Your task to perform on an android device: Go to Android settings Image 0: 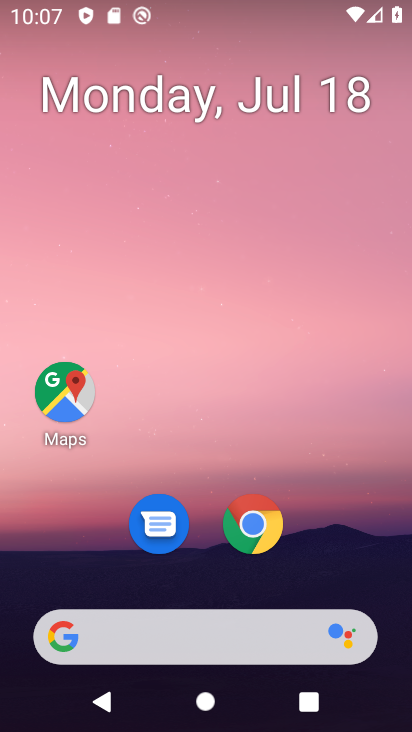
Step 0: drag from (322, 458) to (345, 1)
Your task to perform on an android device: Go to Android settings Image 1: 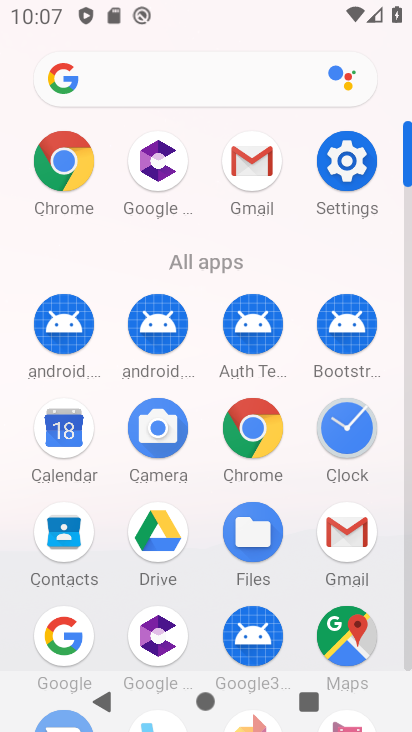
Step 1: click (342, 157)
Your task to perform on an android device: Go to Android settings Image 2: 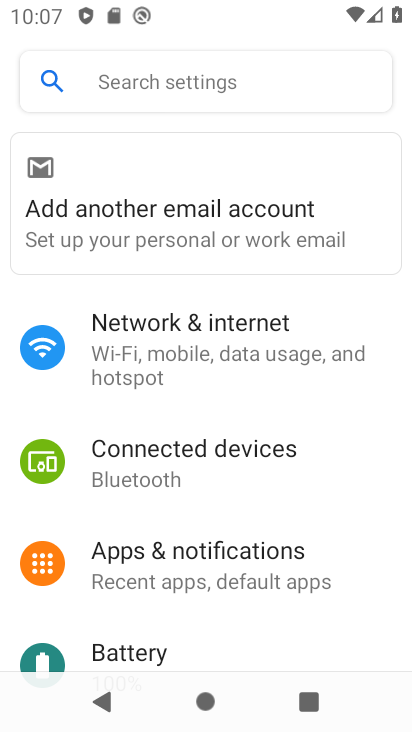
Step 2: drag from (204, 622) to (250, 97)
Your task to perform on an android device: Go to Android settings Image 3: 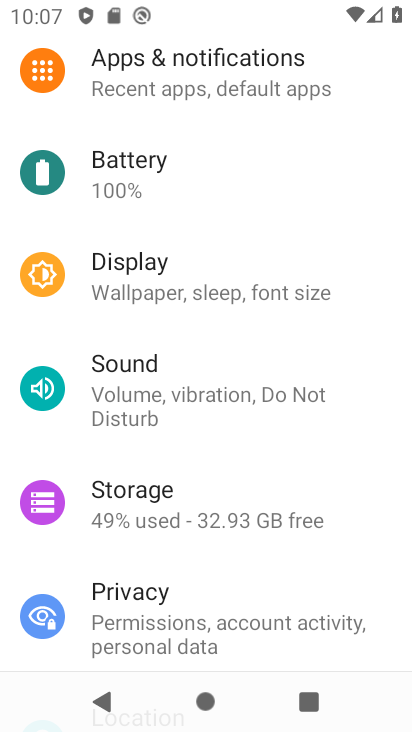
Step 3: drag from (211, 558) to (245, 121)
Your task to perform on an android device: Go to Android settings Image 4: 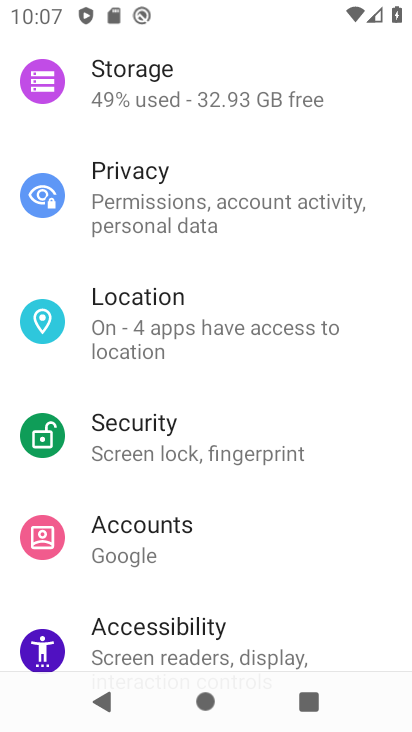
Step 4: drag from (248, 570) to (282, 99)
Your task to perform on an android device: Go to Android settings Image 5: 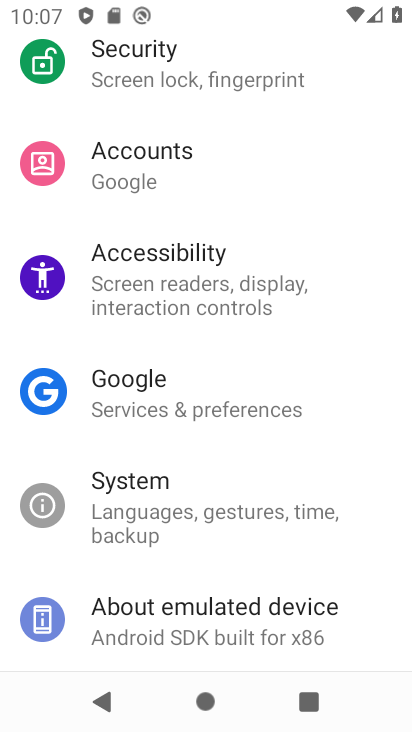
Step 5: click (221, 610)
Your task to perform on an android device: Go to Android settings Image 6: 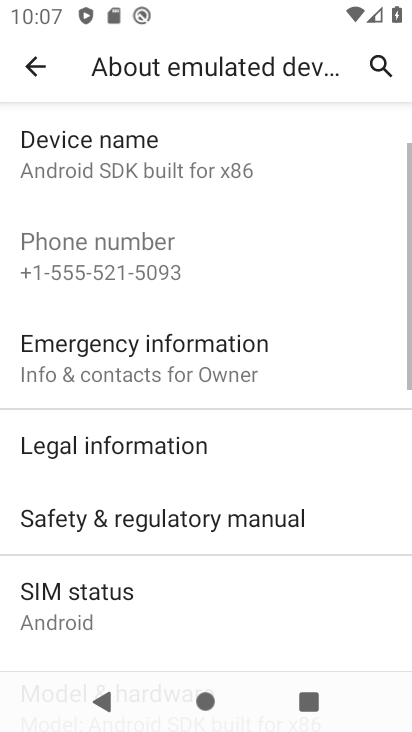
Step 6: task complete